Your task to perform on an android device: change alarm snooze length Image 0: 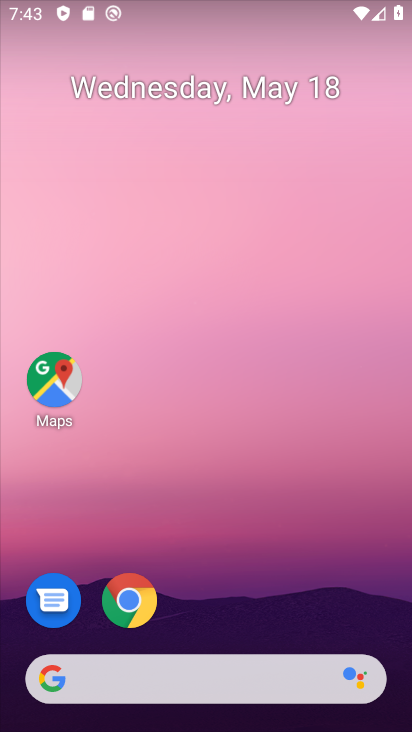
Step 0: drag from (289, 688) to (312, 78)
Your task to perform on an android device: change alarm snooze length Image 1: 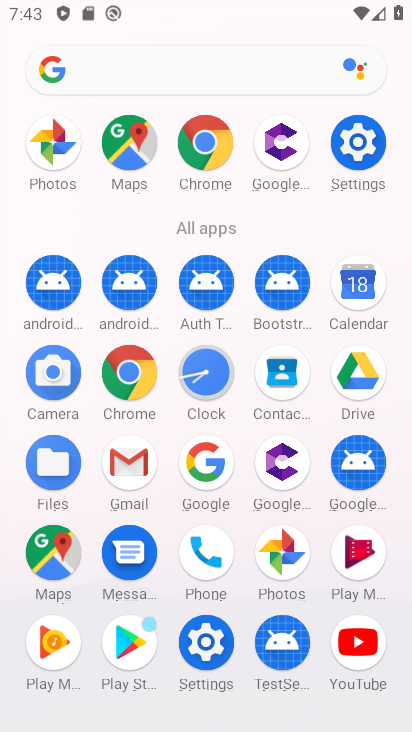
Step 1: click (211, 371)
Your task to perform on an android device: change alarm snooze length Image 2: 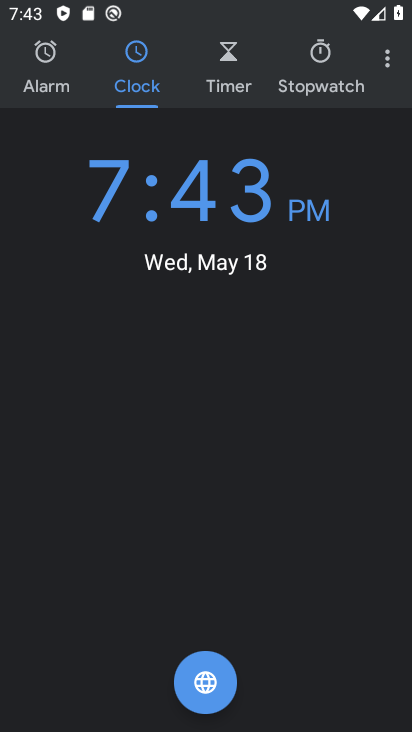
Step 2: click (388, 74)
Your task to perform on an android device: change alarm snooze length Image 3: 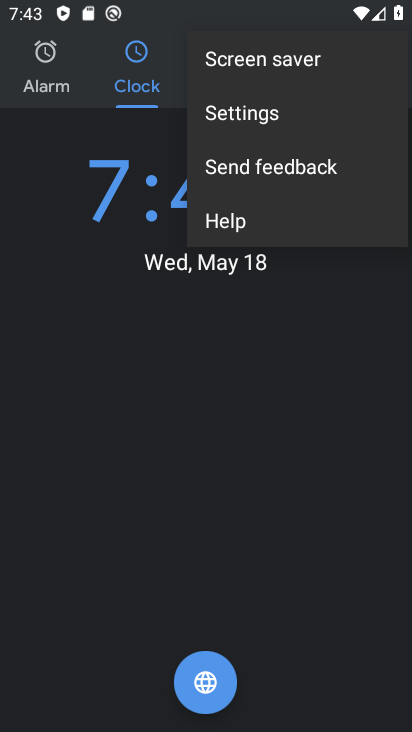
Step 3: click (273, 135)
Your task to perform on an android device: change alarm snooze length Image 4: 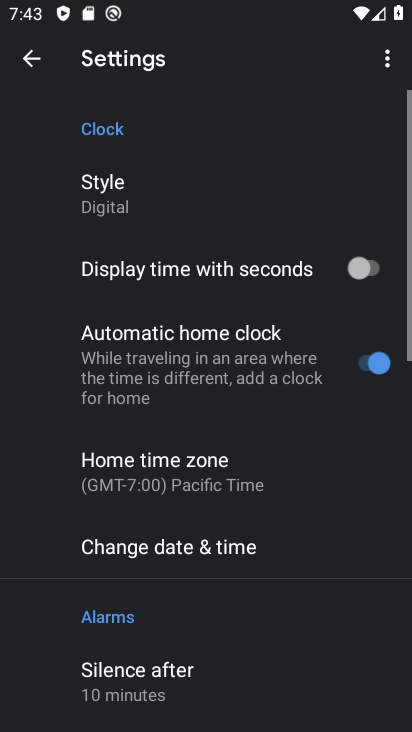
Step 4: drag from (245, 501) to (261, 259)
Your task to perform on an android device: change alarm snooze length Image 5: 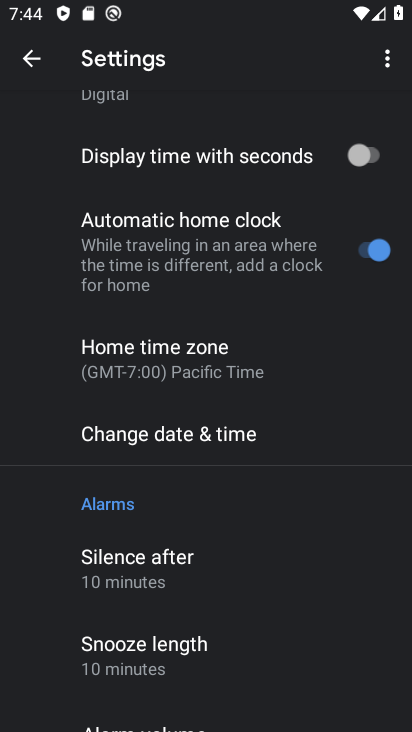
Step 5: click (181, 627)
Your task to perform on an android device: change alarm snooze length Image 6: 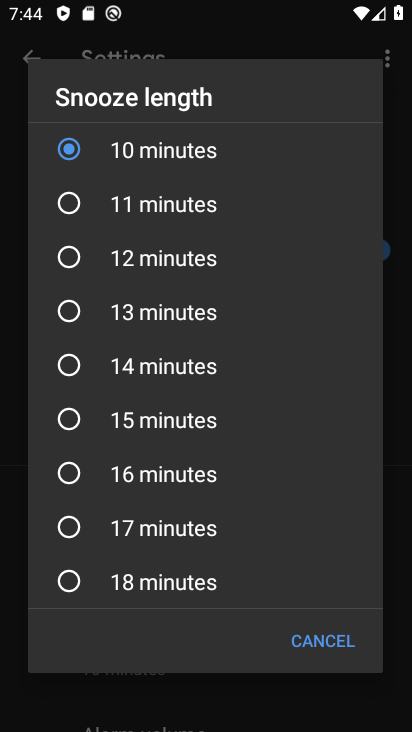
Step 6: click (153, 315)
Your task to perform on an android device: change alarm snooze length Image 7: 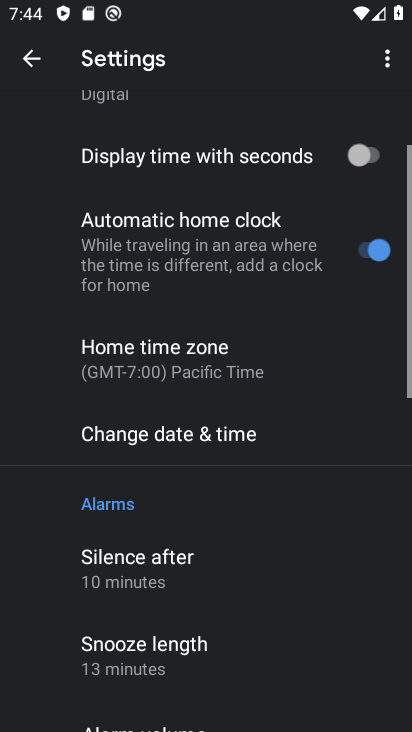
Step 7: task complete